Your task to perform on an android device: Search for pizza restaurants on Maps Image 0: 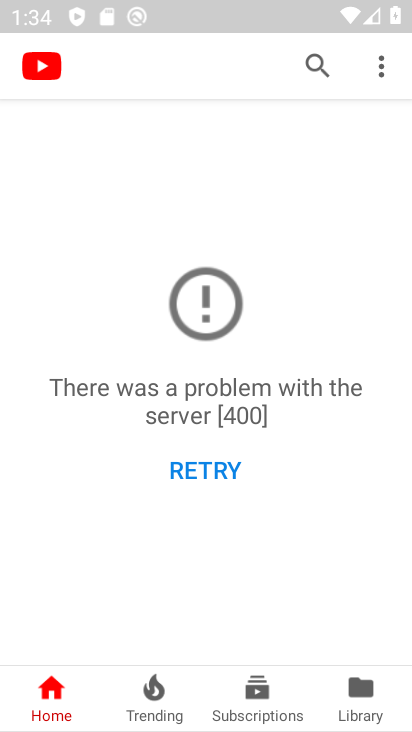
Step 0: press back button
Your task to perform on an android device: Search for pizza restaurants on Maps Image 1: 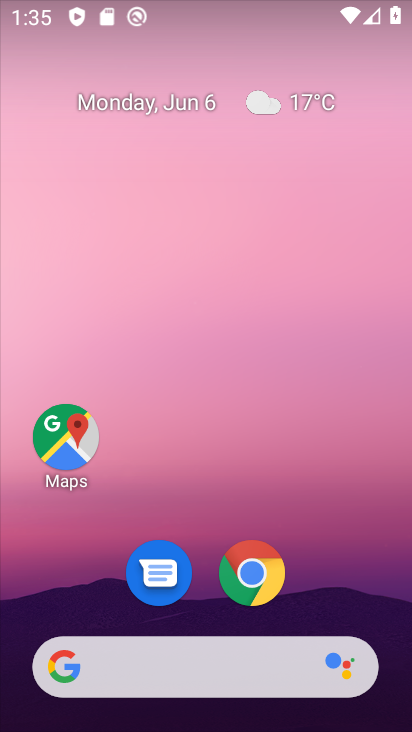
Step 1: click (61, 442)
Your task to perform on an android device: Search for pizza restaurants on Maps Image 2: 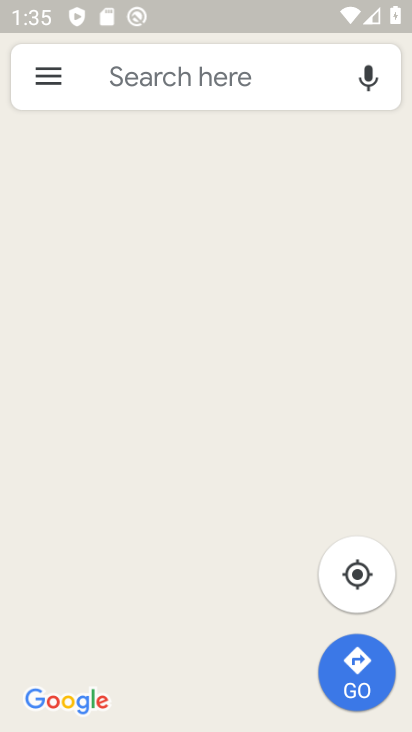
Step 2: click (181, 64)
Your task to perform on an android device: Search for pizza restaurants on Maps Image 3: 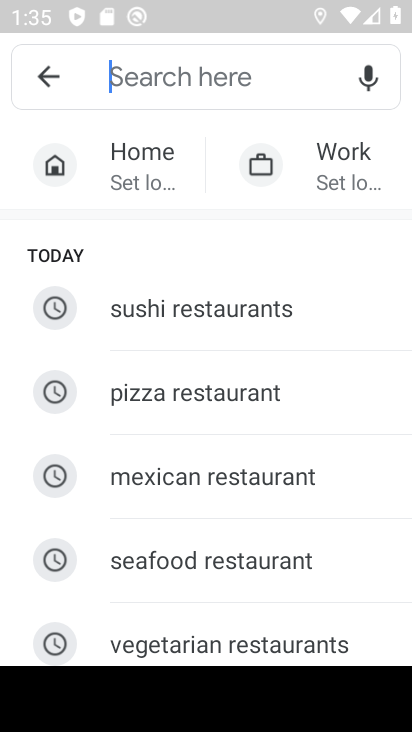
Step 3: type "pizza restaurants"
Your task to perform on an android device: Search for pizza restaurants on Maps Image 4: 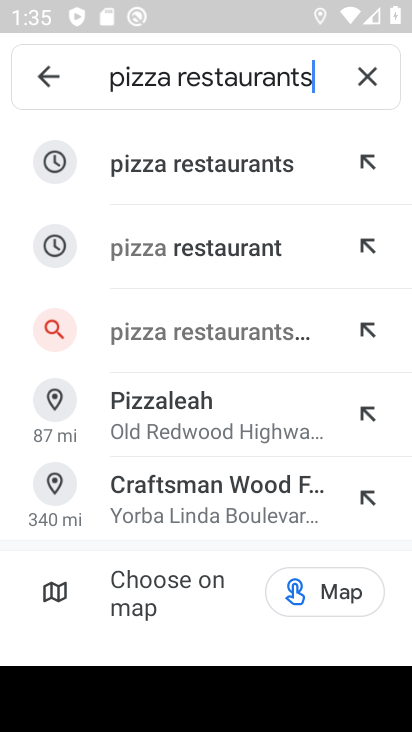
Step 4: click (166, 169)
Your task to perform on an android device: Search for pizza restaurants on Maps Image 5: 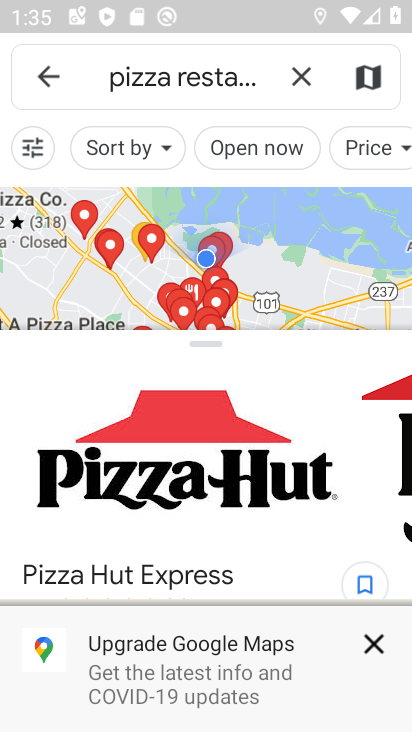
Step 5: task complete